Your task to perform on an android device: Go to settings Image 0: 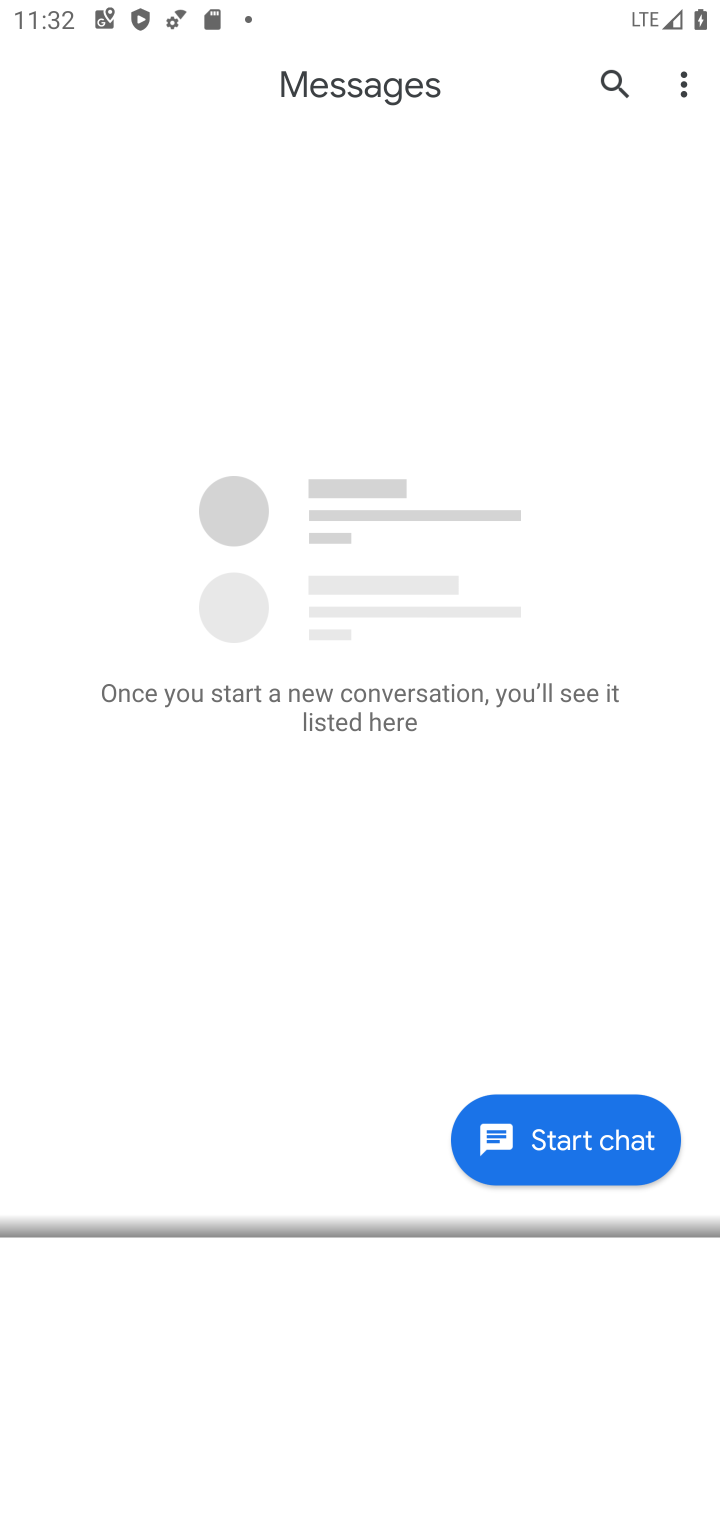
Step 0: press back button
Your task to perform on an android device: Go to settings Image 1: 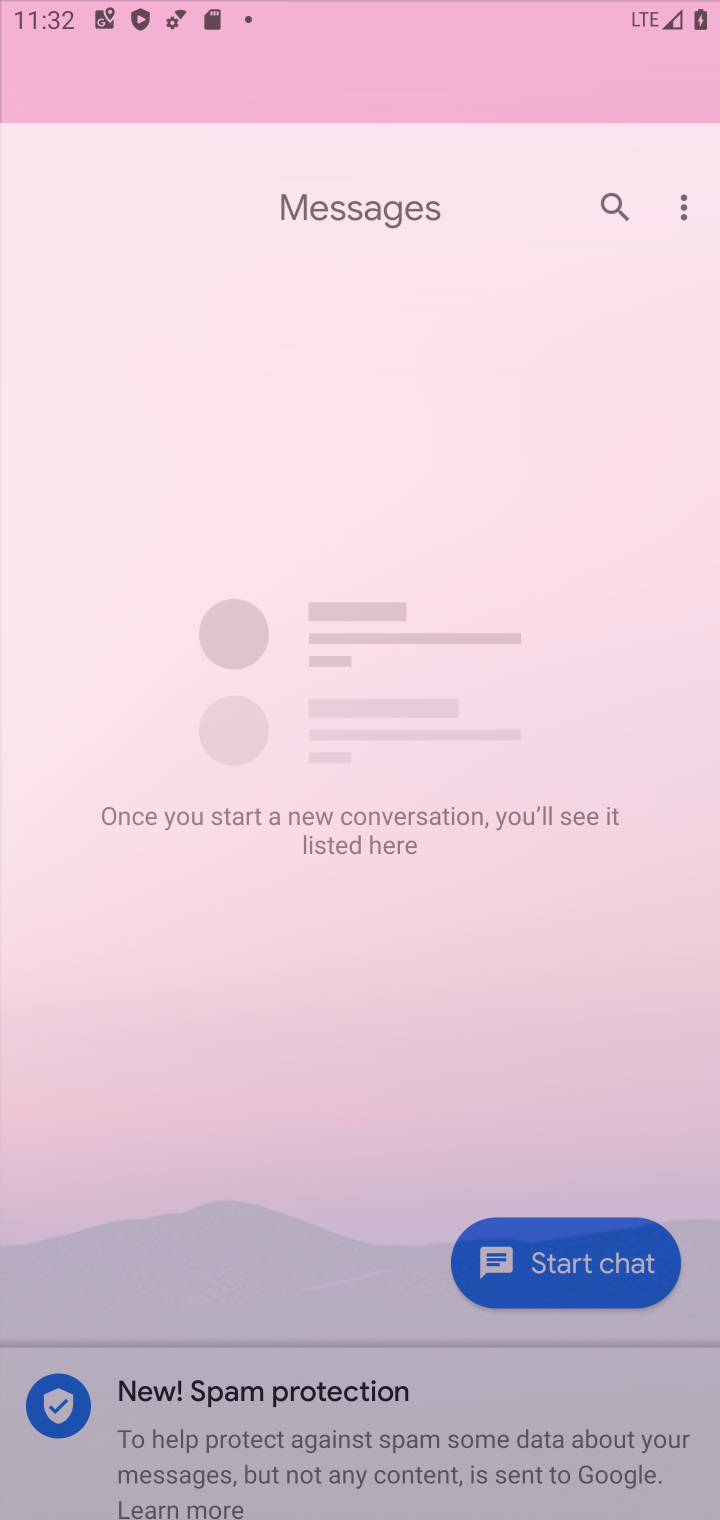
Step 1: press back button
Your task to perform on an android device: Go to settings Image 2: 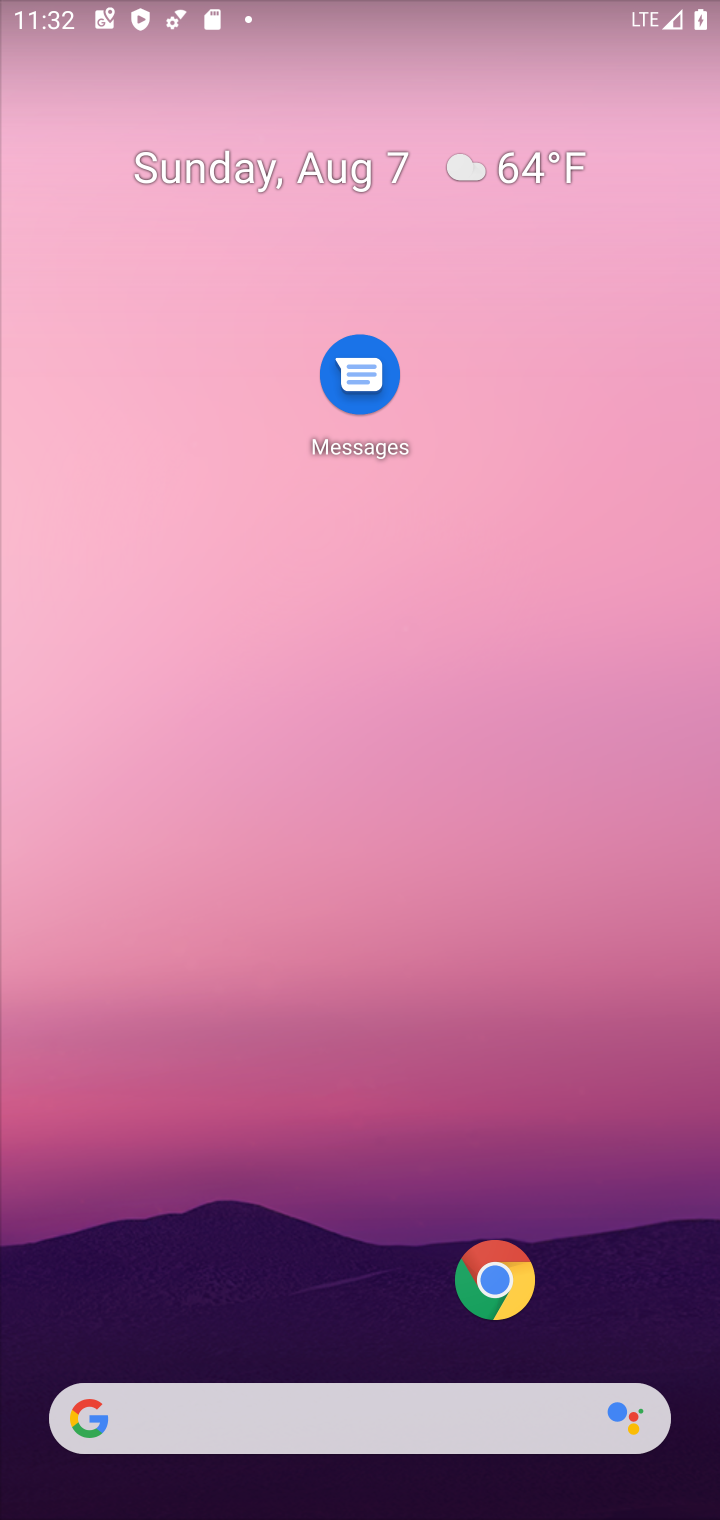
Step 2: drag from (151, 1057) to (319, 28)
Your task to perform on an android device: Go to settings Image 3: 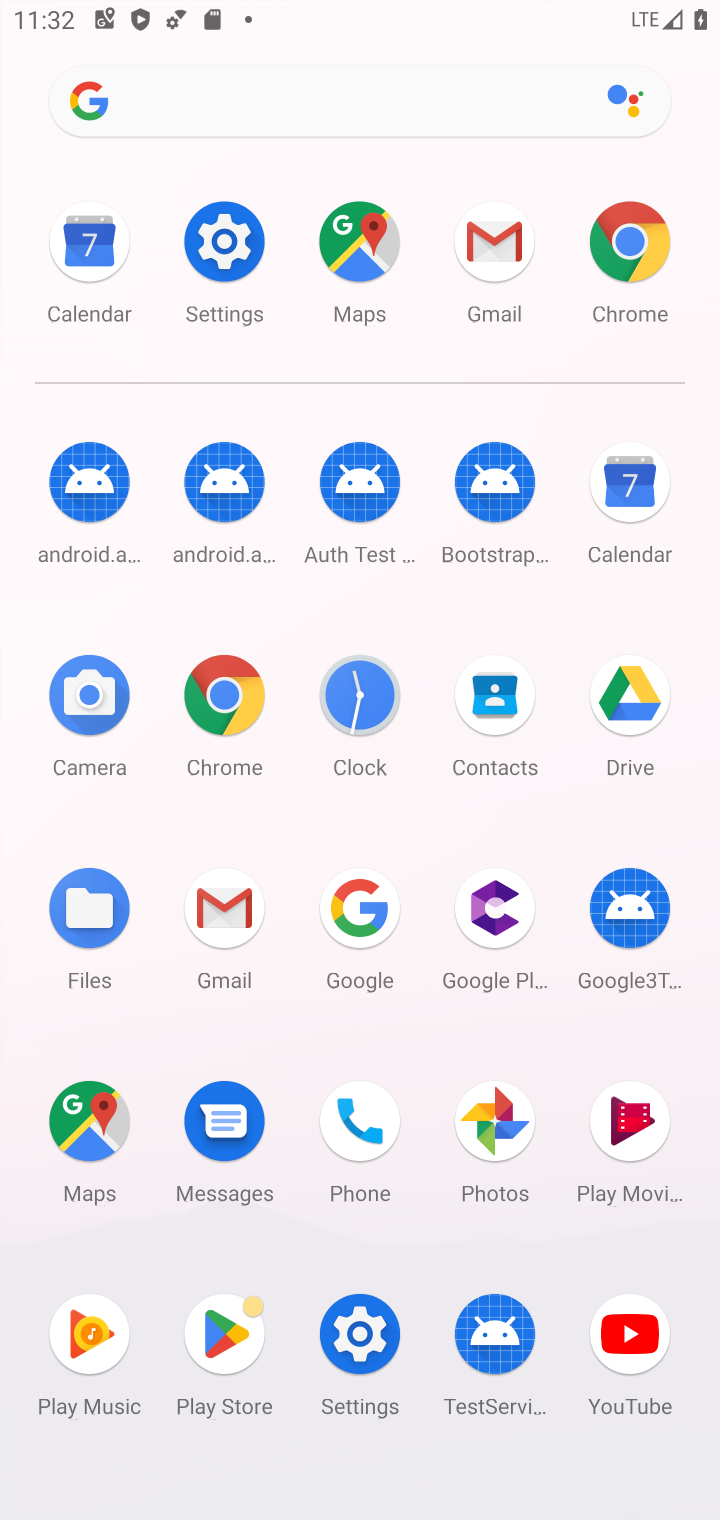
Step 3: click (227, 249)
Your task to perform on an android device: Go to settings Image 4: 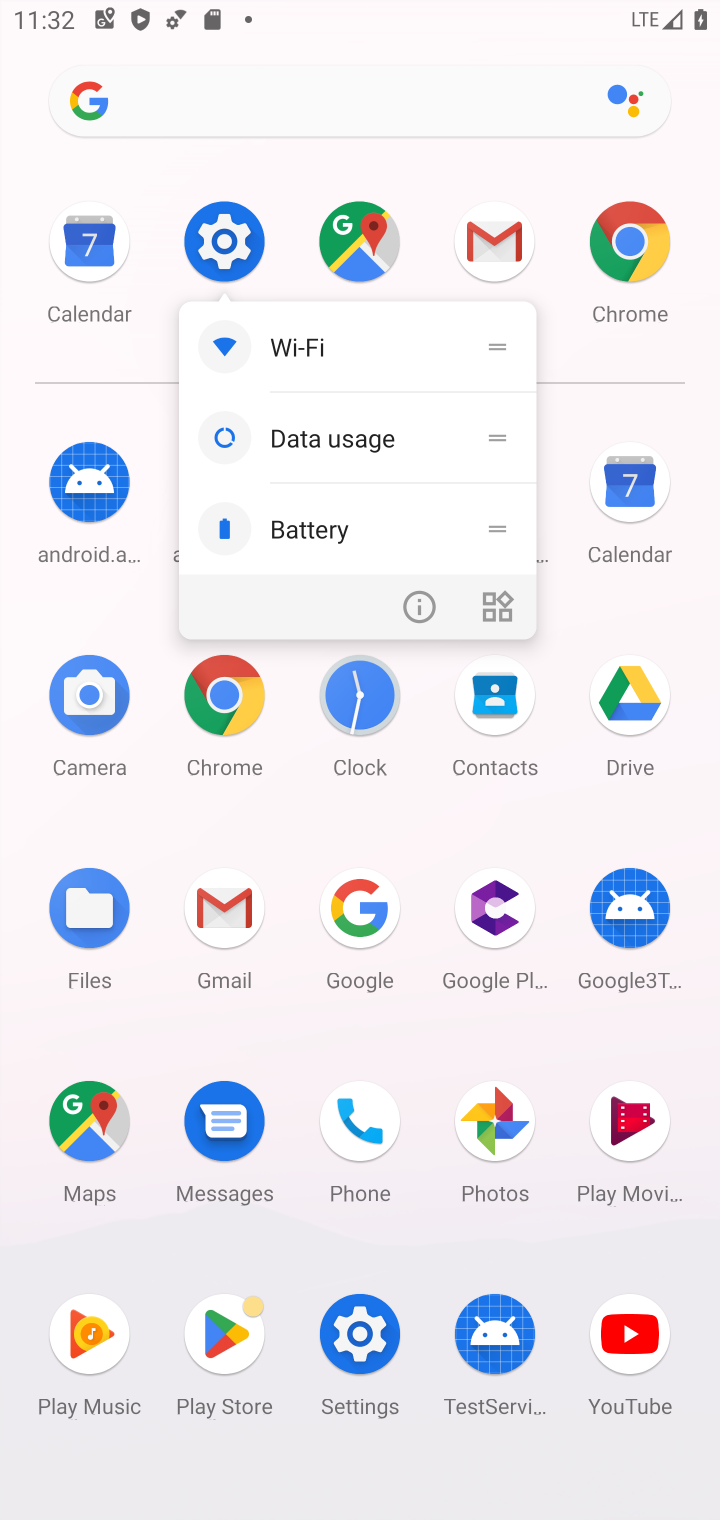
Step 4: click (227, 249)
Your task to perform on an android device: Go to settings Image 5: 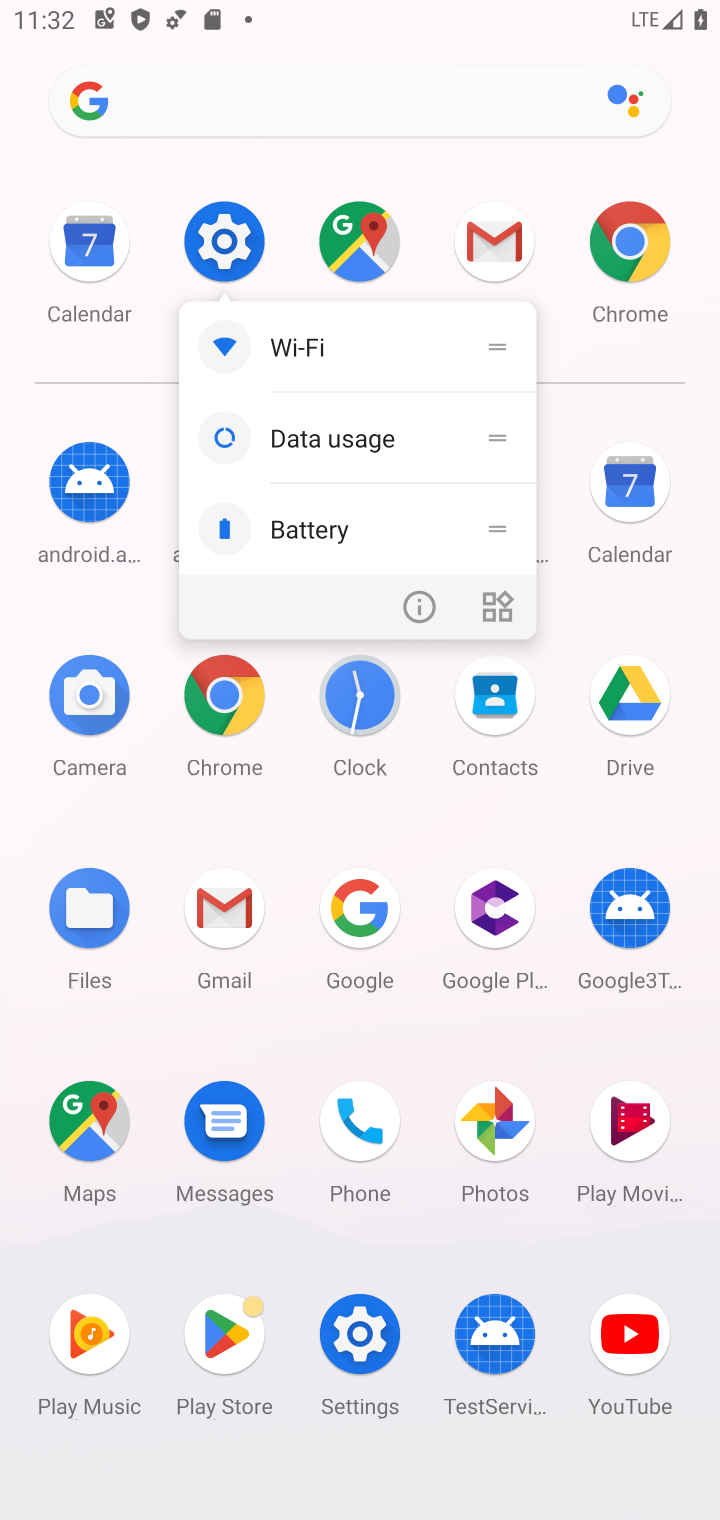
Step 5: click (227, 249)
Your task to perform on an android device: Go to settings Image 6: 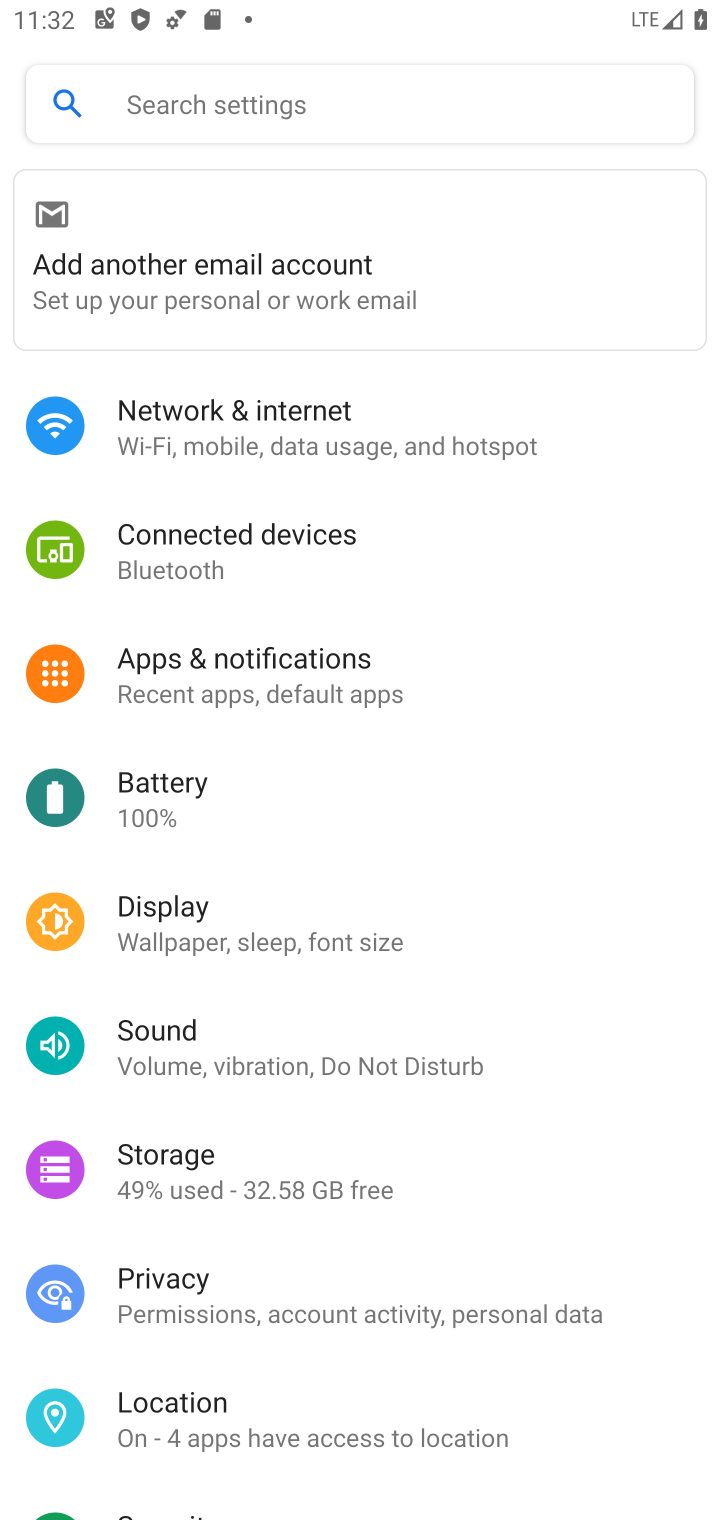
Step 6: task complete